Your task to perform on an android device: turn on showing notifications on the lock screen Image 0: 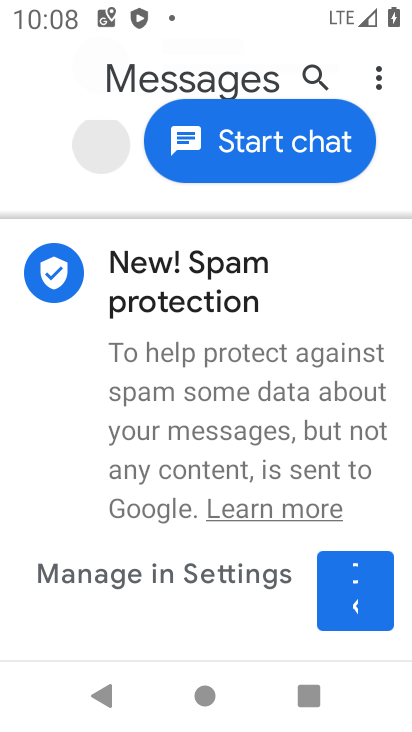
Step 0: press home button
Your task to perform on an android device: turn on showing notifications on the lock screen Image 1: 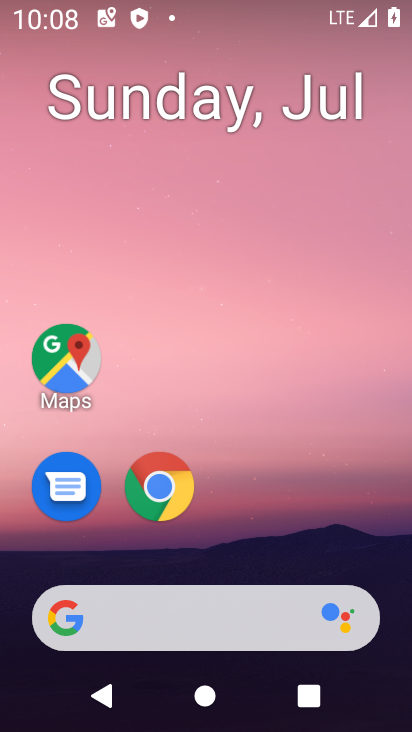
Step 1: drag from (379, 543) to (384, 127)
Your task to perform on an android device: turn on showing notifications on the lock screen Image 2: 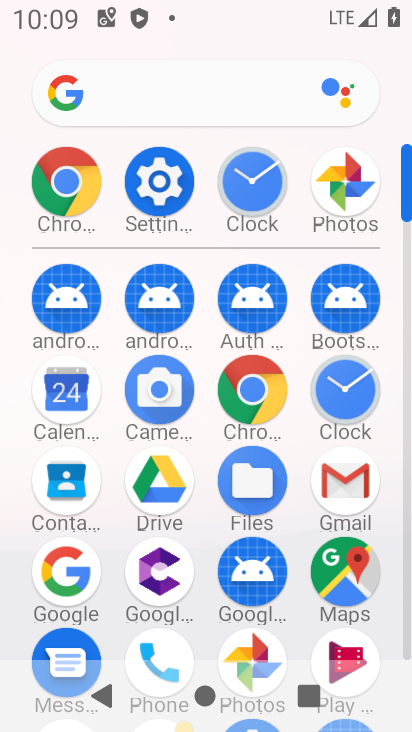
Step 2: click (166, 187)
Your task to perform on an android device: turn on showing notifications on the lock screen Image 3: 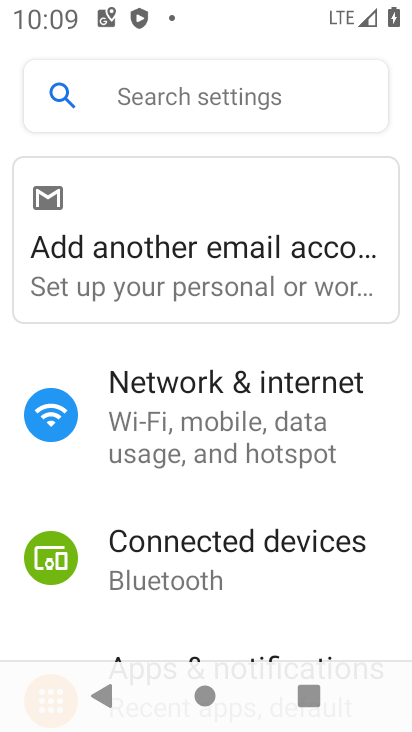
Step 3: drag from (367, 476) to (374, 381)
Your task to perform on an android device: turn on showing notifications on the lock screen Image 4: 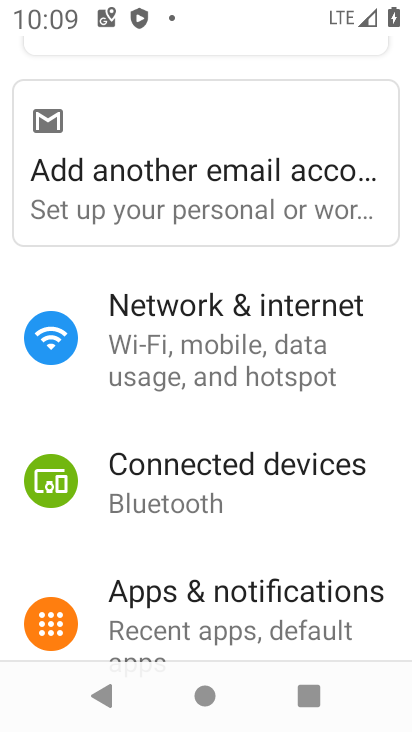
Step 4: drag from (374, 517) to (376, 405)
Your task to perform on an android device: turn on showing notifications on the lock screen Image 5: 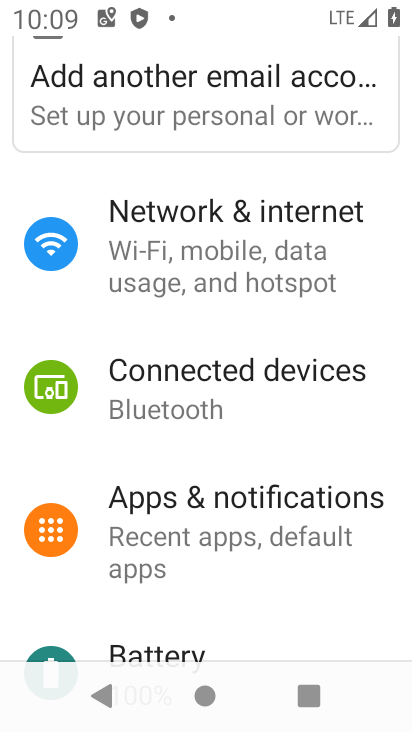
Step 5: drag from (387, 591) to (367, 467)
Your task to perform on an android device: turn on showing notifications on the lock screen Image 6: 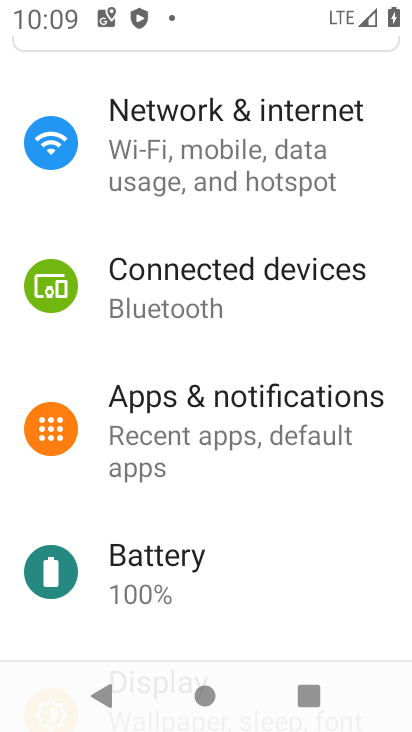
Step 6: drag from (327, 563) to (317, 409)
Your task to perform on an android device: turn on showing notifications on the lock screen Image 7: 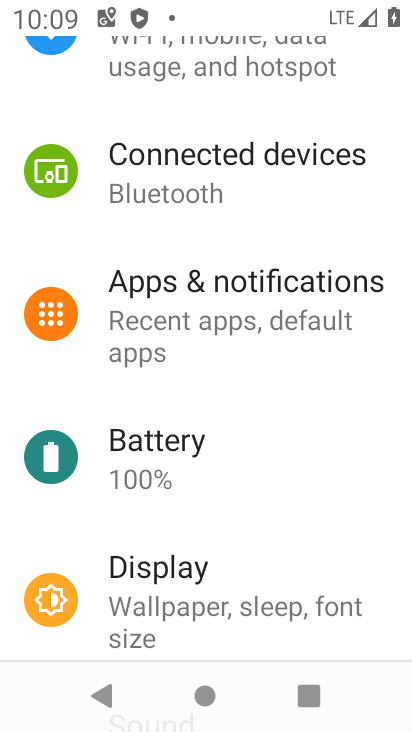
Step 7: click (276, 311)
Your task to perform on an android device: turn on showing notifications on the lock screen Image 8: 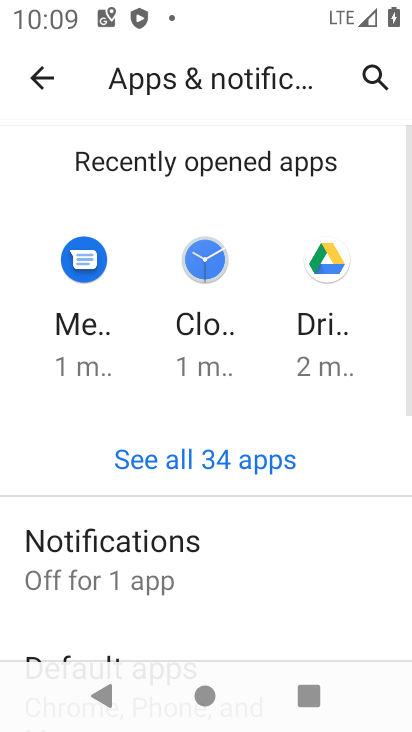
Step 8: click (261, 585)
Your task to perform on an android device: turn on showing notifications on the lock screen Image 9: 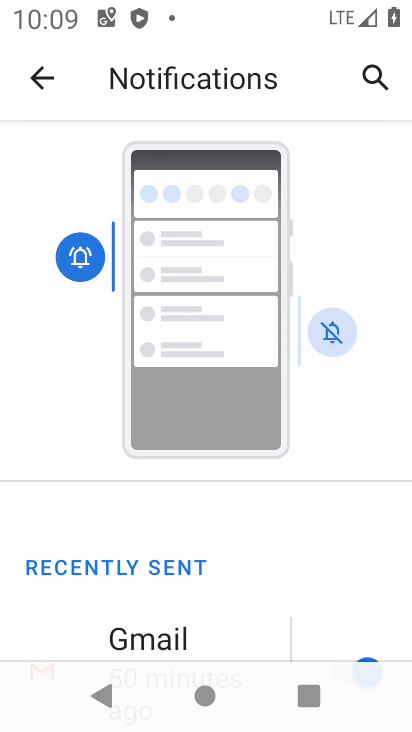
Step 9: drag from (312, 538) to (309, 327)
Your task to perform on an android device: turn on showing notifications on the lock screen Image 10: 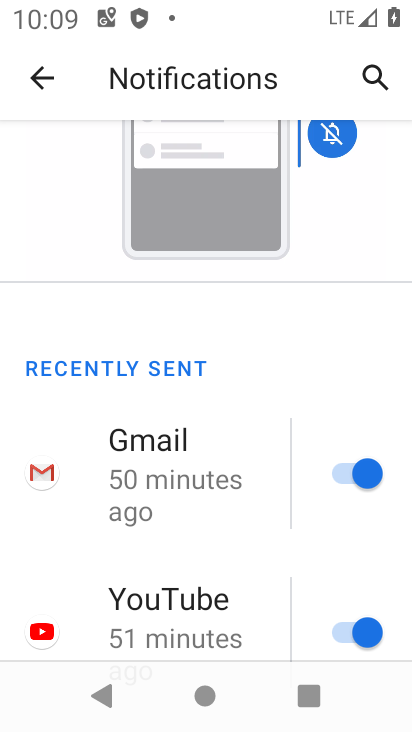
Step 10: drag from (242, 573) to (201, 302)
Your task to perform on an android device: turn on showing notifications on the lock screen Image 11: 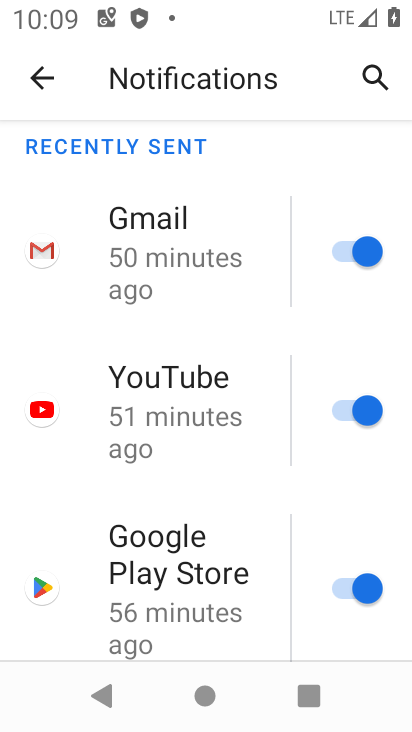
Step 11: drag from (263, 595) to (259, 368)
Your task to perform on an android device: turn on showing notifications on the lock screen Image 12: 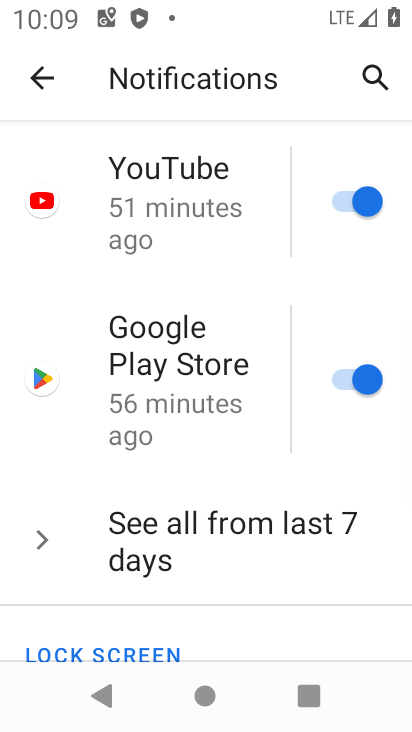
Step 12: drag from (251, 577) to (242, 332)
Your task to perform on an android device: turn on showing notifications on the lock screen Image 13: 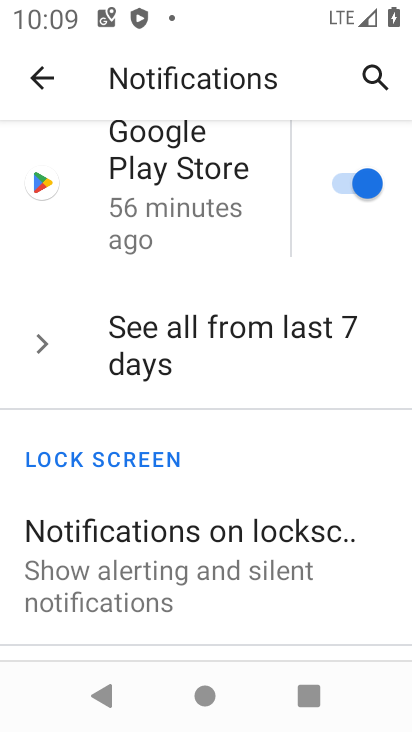
Step 13: click (255, 582)
Your task to perform on an android device: turn on showing notifications on the lock screen Image 14: 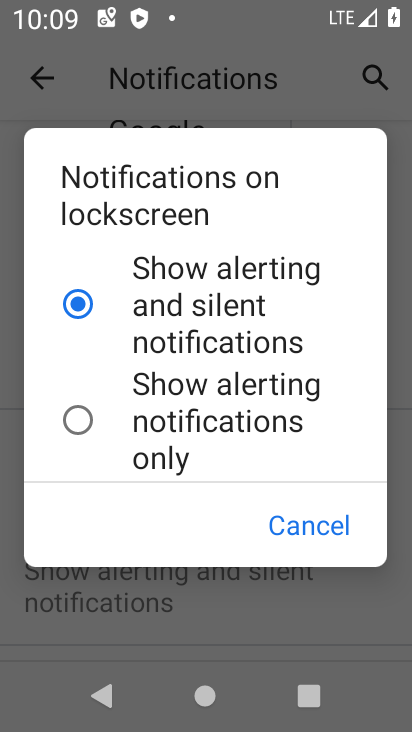
Step 14: click (206, 408)
Your task to perform on an android device: turn on showing notifications on the lock screen Image 15: 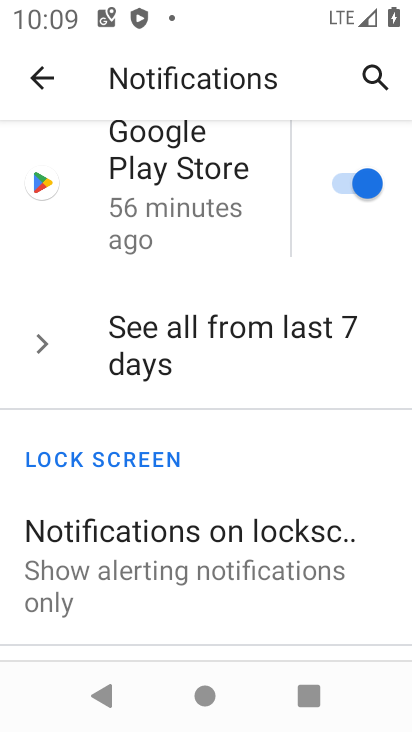
Step 15: task complete